Your task to perform on an android device: When is my next meeting? Image 0: 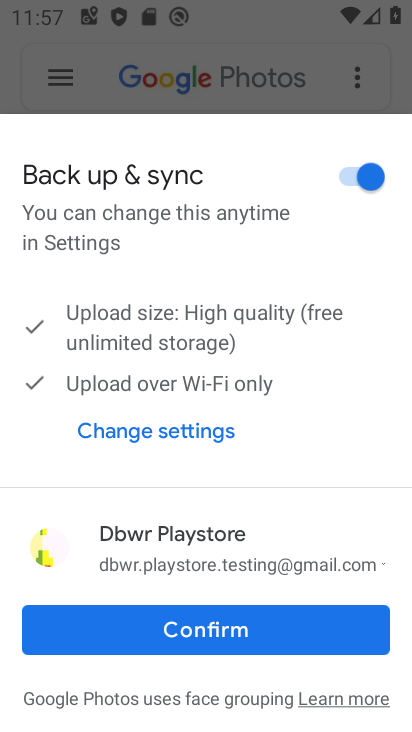
Step 0: press home button
Your task to perform on an android device: When is my next meeting? Image 1: 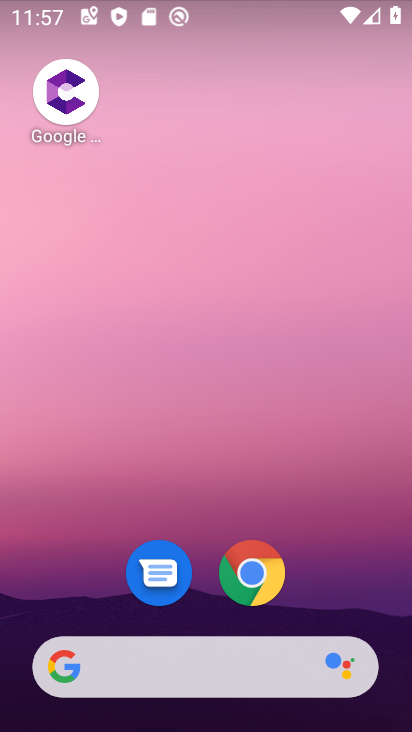
Step 1: drag from (185, 716) to (187, 190)
Your task to perform on an android device: When is my next meeting? Image 2: 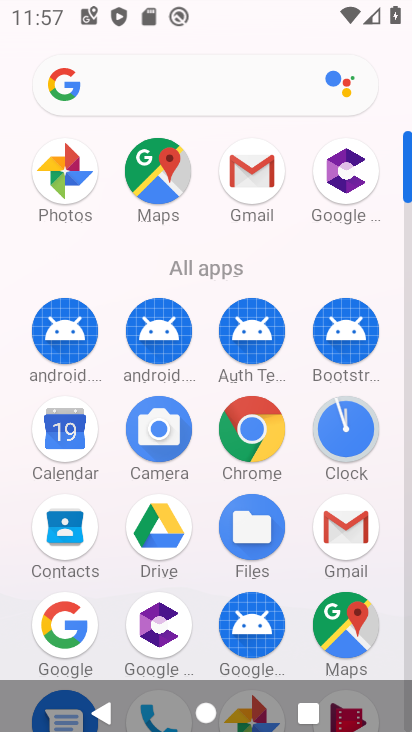
Step 2: click (60, 438)
Your task to perform on an android device: When is my next meeting? Image 3: 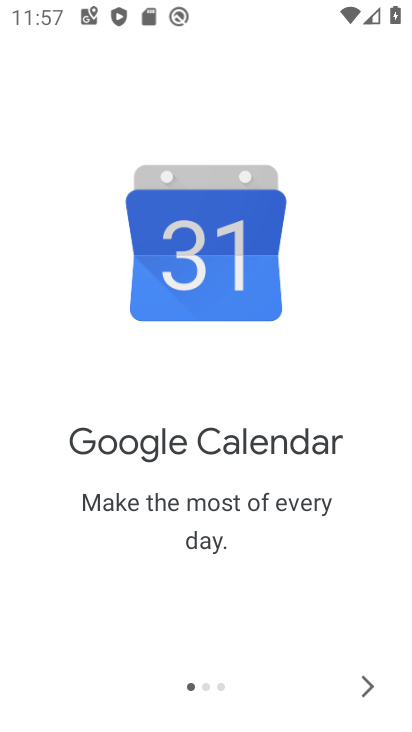
Step 3: click (371, 681)
Your task to perform on an android device: When is my next meeting? Image 4: 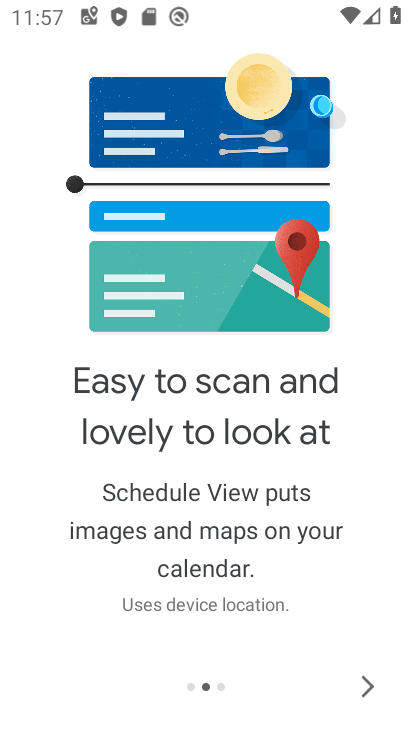
Step 4: click (367, 682)
Your task to perform on an android device: When is my next meeting? Image 5: 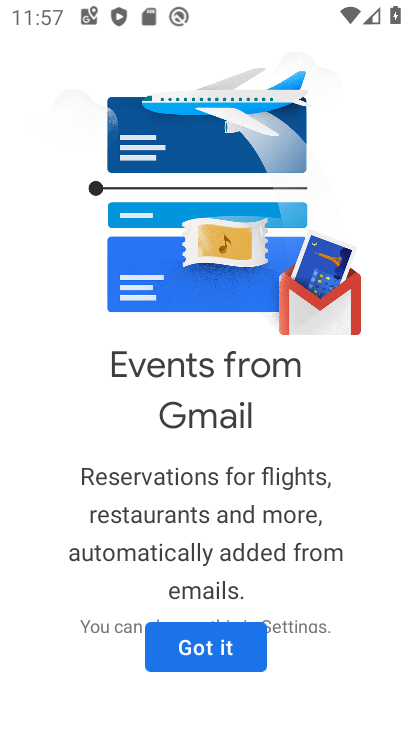
Step 5: click (367, 682)
Your task to perform on an android device: When is my next meeting? Image 6: 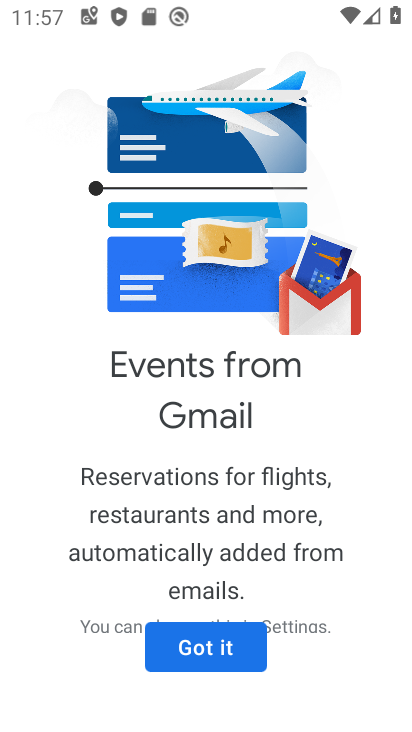
Step 6: click (191, 646)
Your task to perform on an android device: When is my next meeting? Image 7: 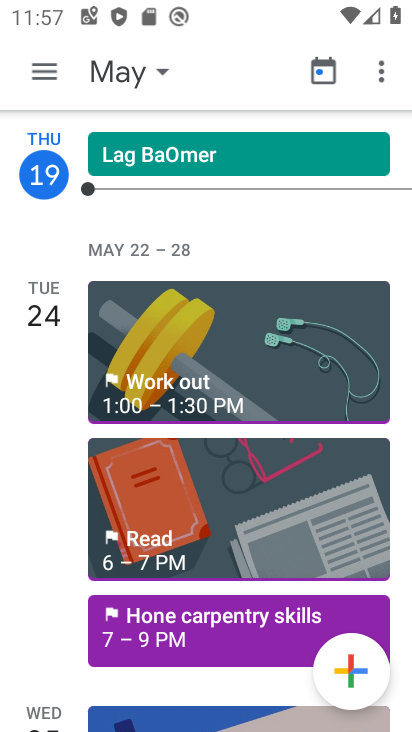
Step 7: click (159, 66)
Your task to perform on an android device: When is my next meeting? Image 8: 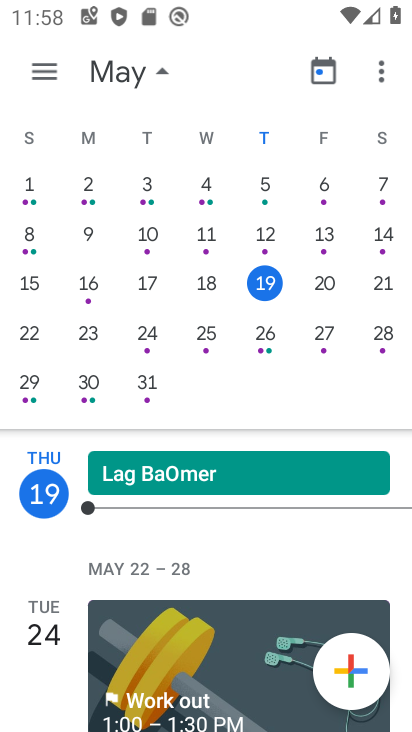
Step 8: click (329, 274)
Your task to perform on an android device: When is my next meeting? Image 9: 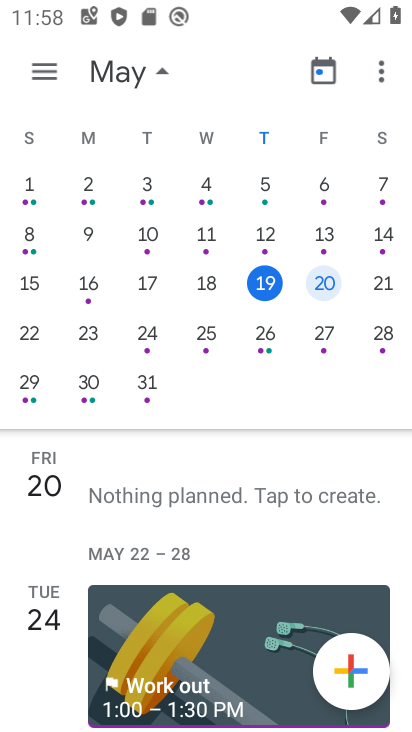
Step 9: click (321, 278)
Your task to perform on an android device: When is my next meeting? Image 10: 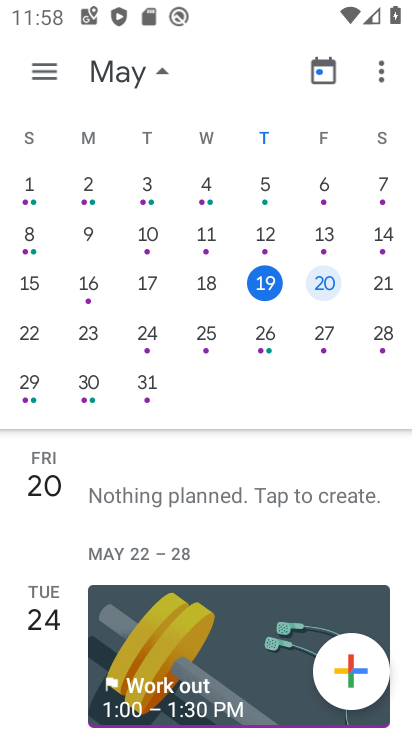
Step 10: task complete